Your task to perform on an android device: open a bookmark in the chrome app Image 0: 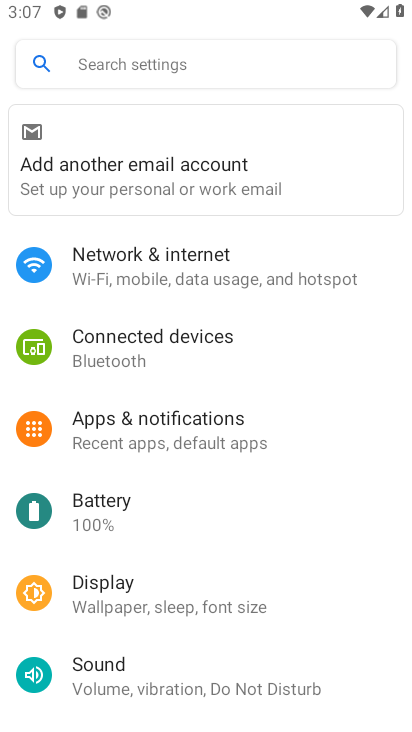
Step 0: press home button
Your task to perform on an android device: open a bookmark in the chrome app Image 1: 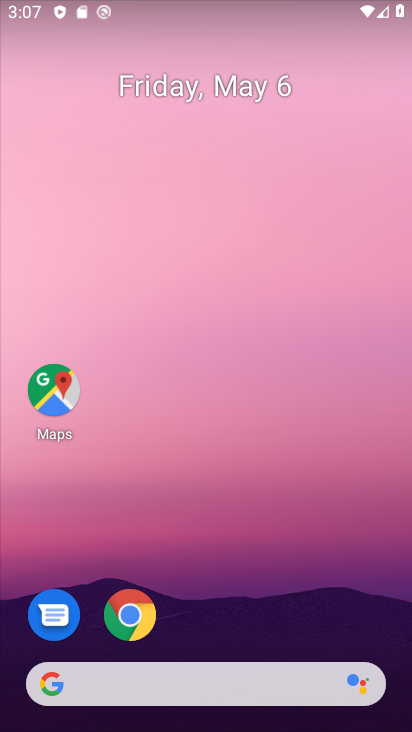
Step 1: click (137, 613)
Your task to perform on an android device: open a bookmark in the chrome app Image 2: 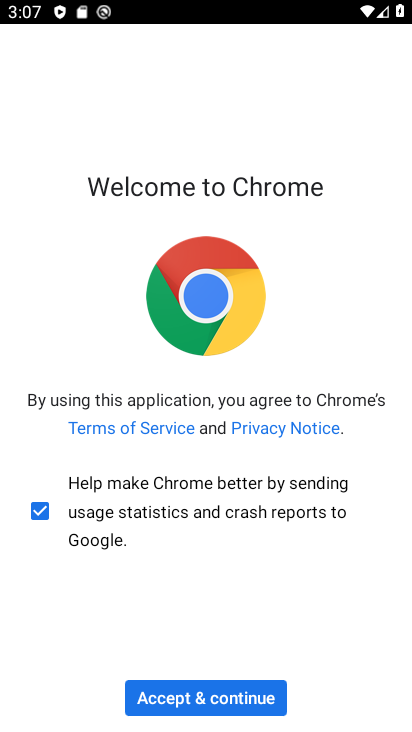
Step 2: click (261, 685)
Your task to perform on an android device: open a bookmark in the chrome app Image 3: 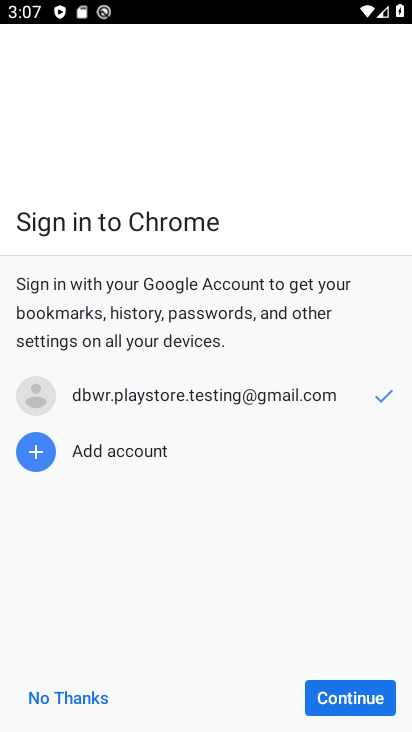
Step 3: click (327, 705)
Your task to perform on an android device: open a bookmark in the chrome app Image 4: 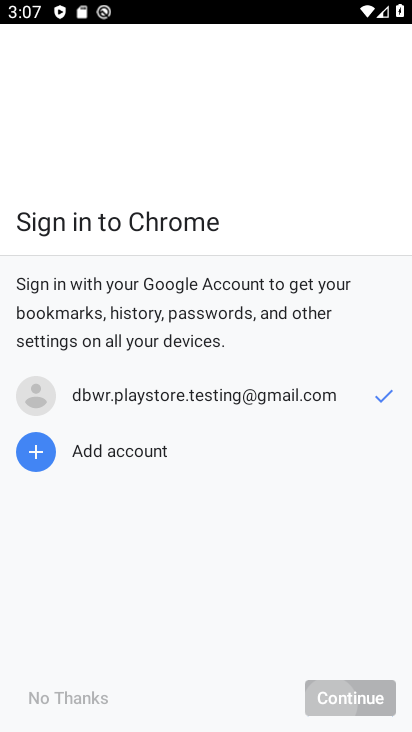
Step 4: click (350, 691)
Your task to perform on an android device: open a bookmark in the chrome app Image 5: 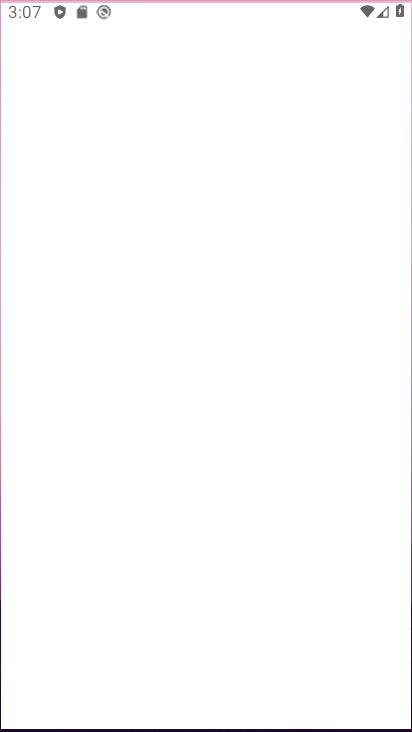
Step 5: click (350, 691)
Your task to perform on an android device: open a bookmark in the chrome app Image 6: 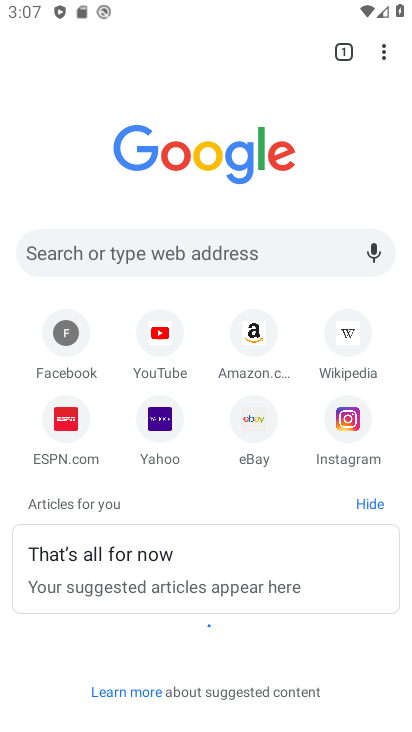
Step 6: task complete